Your task to perform on an android device: Turn on the flashlight Image 0: 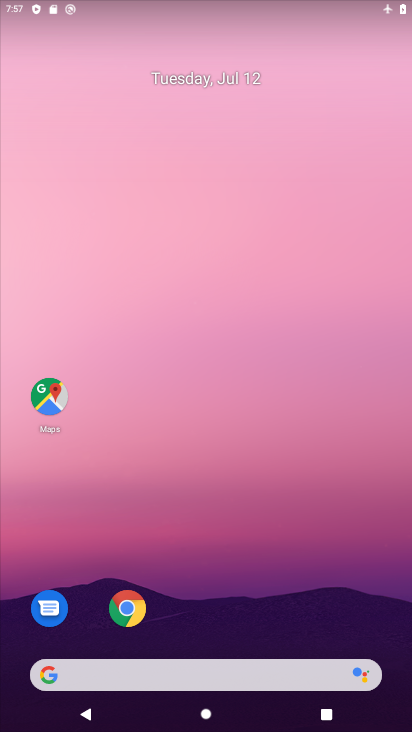
Step 0: drag from (229, 650) to (126, 110)
Your task to perform on an android device: Turn on the flashlight Image 1: 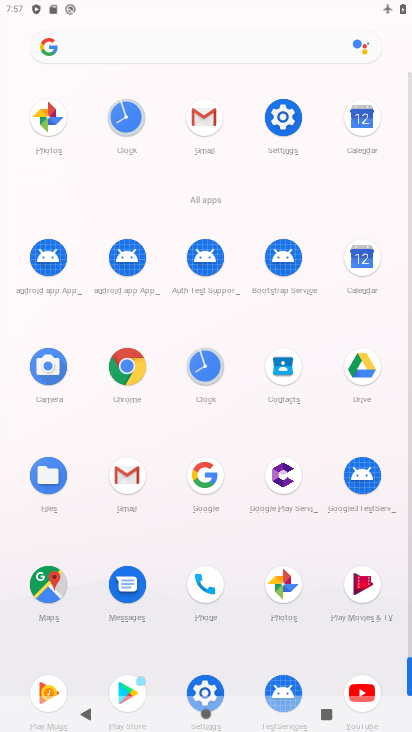
Step 1: click (297, 129)
Your task to perform on an android device: Turn on the flashlight Image 2: 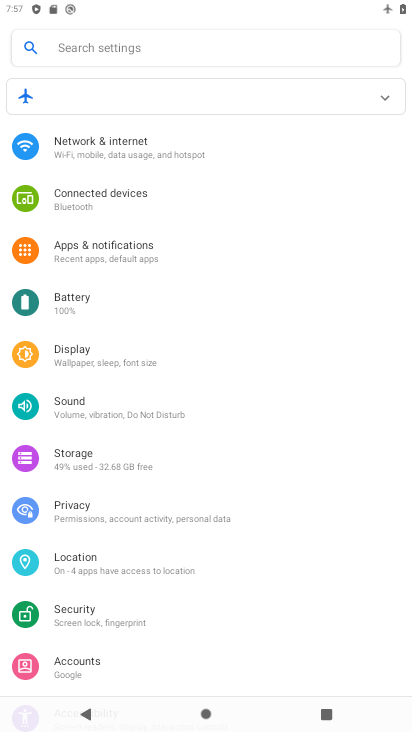
Step 2: task complete